Your task to perform on an android device: Open ESPN.com Image 0: 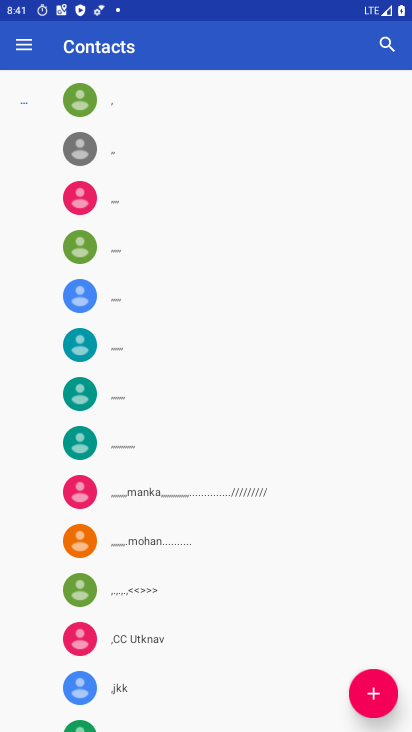
Step 0: press home button
Your task to perform on an android device: Open ESPN.com Image 1: 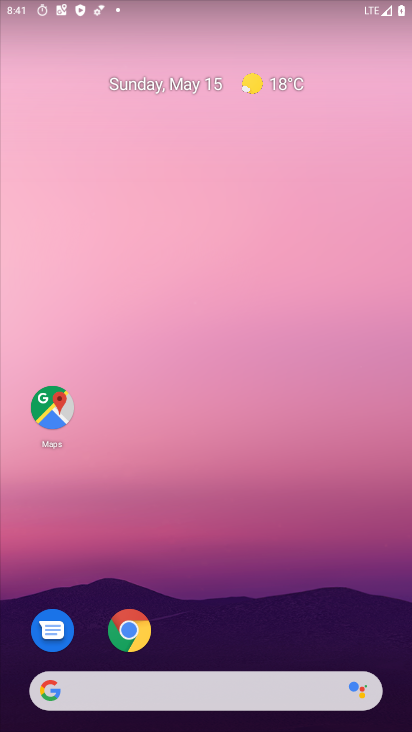
Step 1: drag from (210, 601) to (232, 40)
Your task to perform on an android device: Open ESPN.com Image 2: 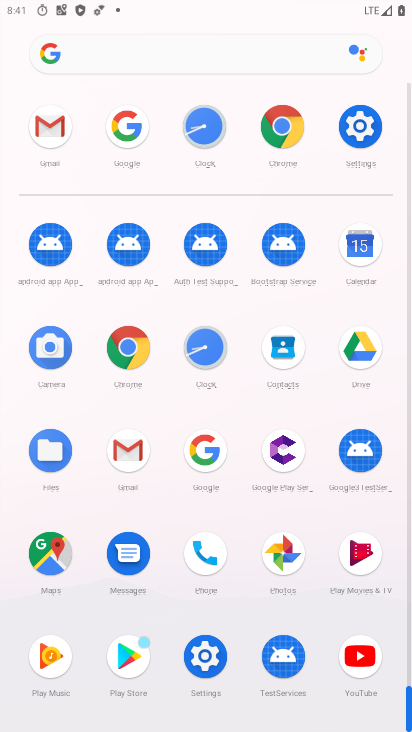
Step 2: click (207, 67)
Your task to perform on an android device: Open ESPN.com Image 3: 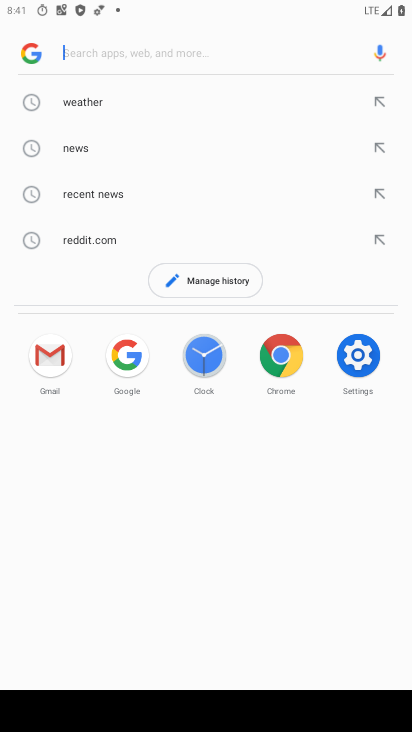
Step 3: click (146, 52)
Your task to perform on an android device: Open ESPN.com Image 4: 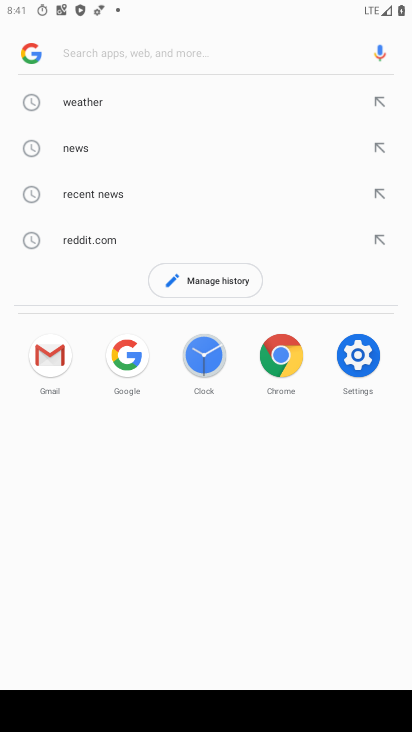
Step 4: type "espn.com"
Your task to perform on an android device: Open ESPN.com Image 5: 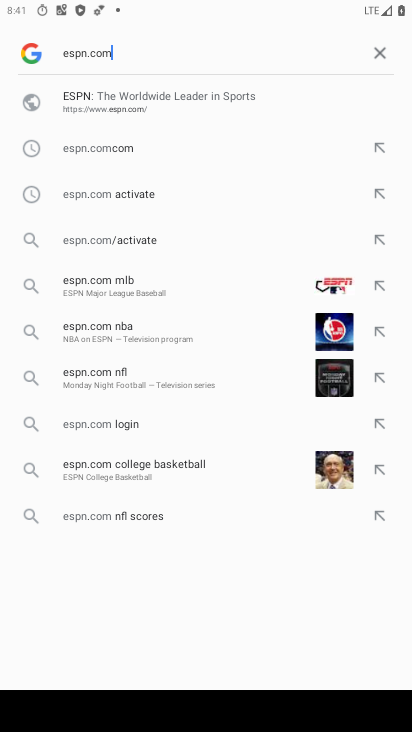
Step 5: click (134, 100)
Your task to perform on an android device: Open ESPN.com Image 6: 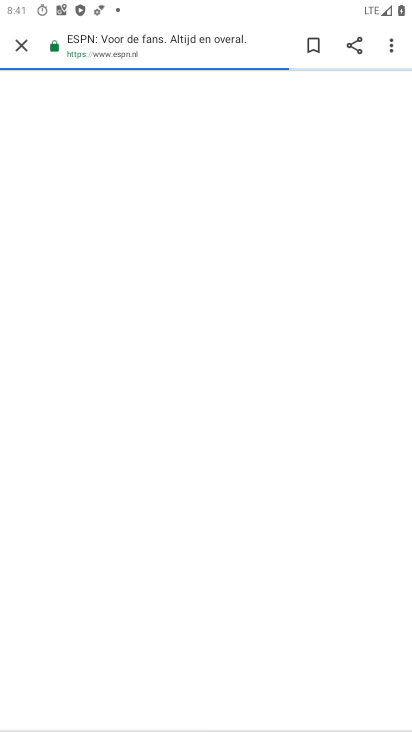
Step 6: task complete